Your task to perform on an android device: turn off picture-in-picture Image 0: 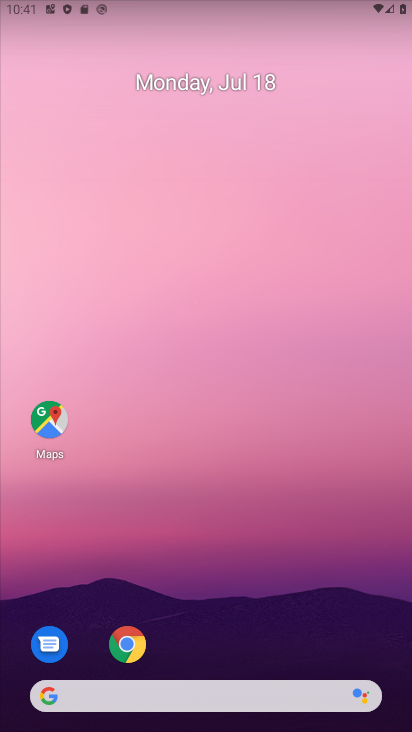
Step 0: press home button
Your task to perform on an android device: turn off picture-in-picture Image 1: 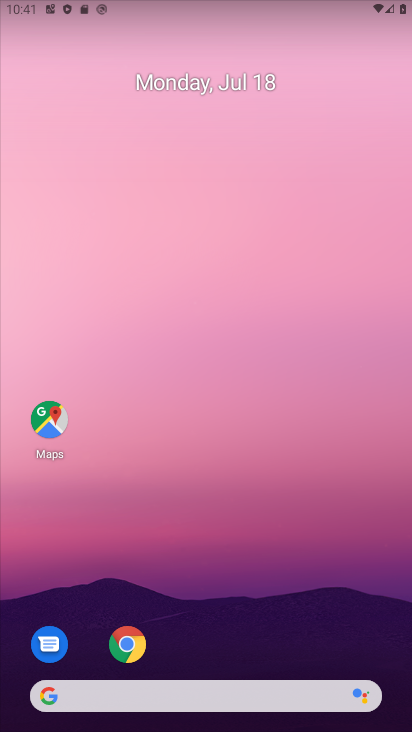
Step 1: click (127, 646)
Your task to perform on an android device: turn off picture-in-picture Image 2: 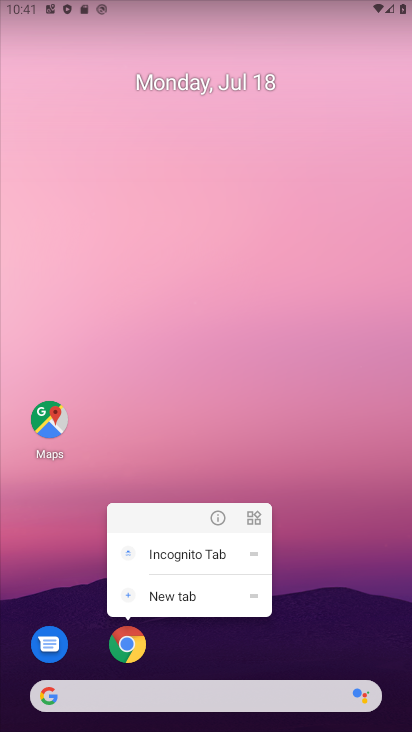
Step 2: click (210, 522)
Your task to perform on an android device: turn off picture-in-picture Image 3: 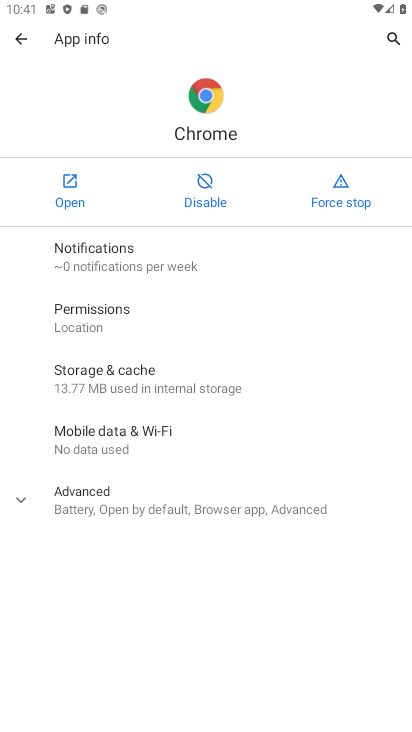
Step 3: click (89, 496)
Your task to perform on an android device: turn off picture-in-picture Image 4: 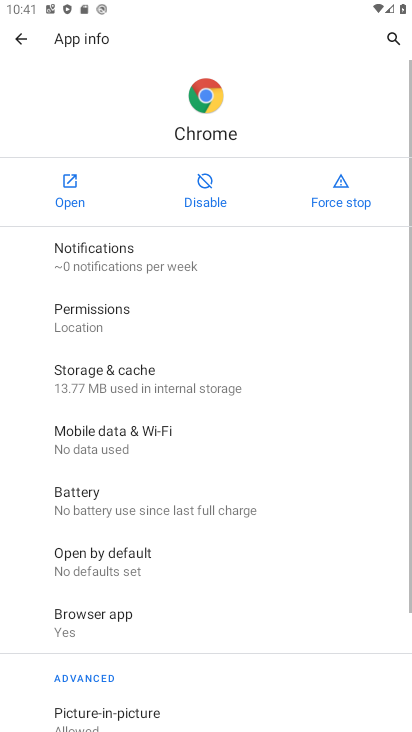
Step 4: drag from (224, 519) to (226, 380)
Your task to perform on an android device: turn off picture-in-picture Image 5: 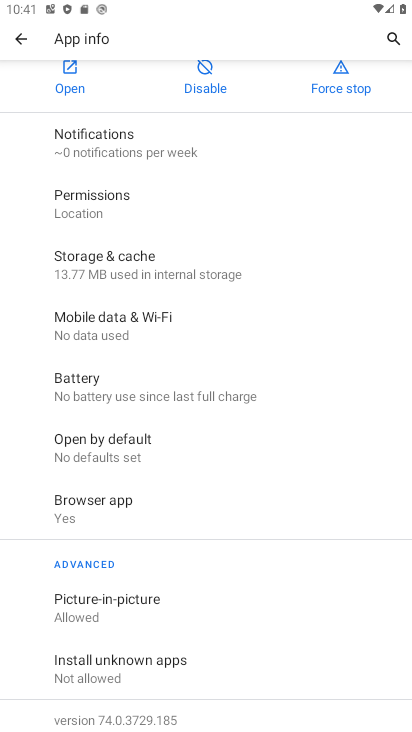
Step 5: click (107, 603)
Your task to perform on an android device: turn off picture-in-picture Image 6: 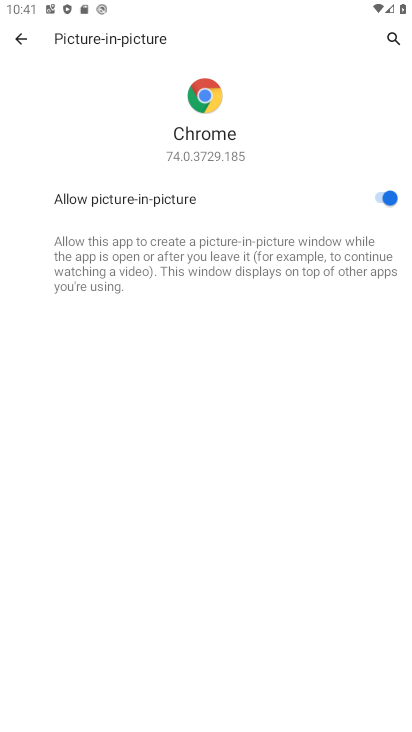
Step 6: click (385, 192)
Your task to perform on an android device: turn off picture-in-picture Image 7: 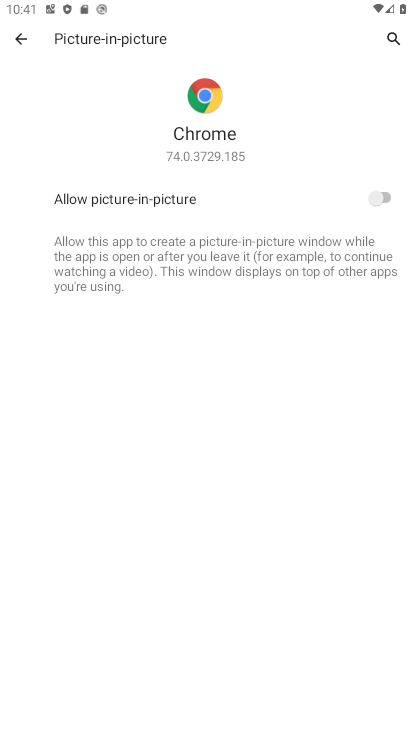
Step 7: task complete